Your task to perform on an android device: remove spam from my inbox in the gmail app Image 0: 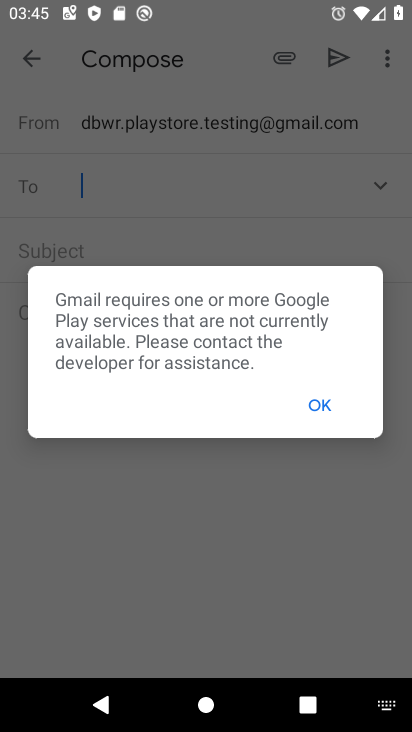
Step 0: press home button
Your task to perform on an android device: remove spam from my inbox in the gmail app Image 1: 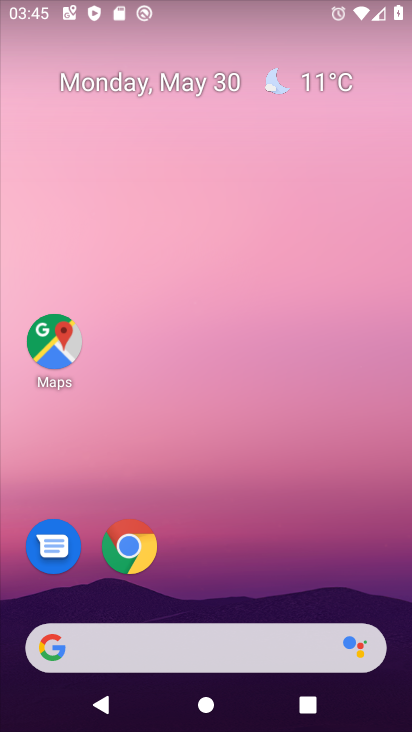
Step 1: drag from (218, 528) to (235, 157)
Your task to perform on an android device: remove spam from my inbox in the gmail app Image 2: 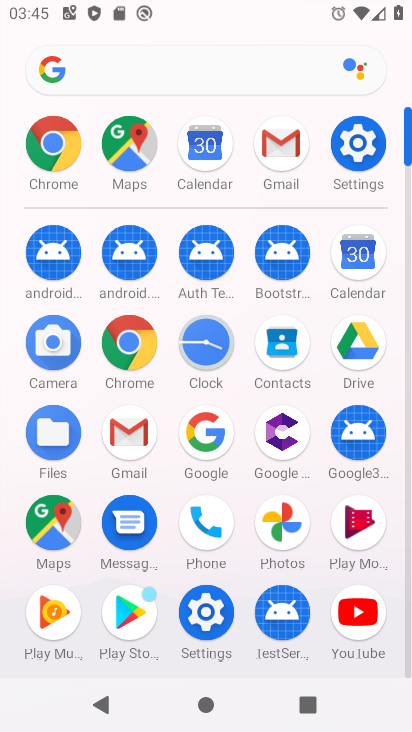
Step 2: click (266, 135)
Your task to perform on an android device: remove spam from my inbox in the gmail app Image 3: 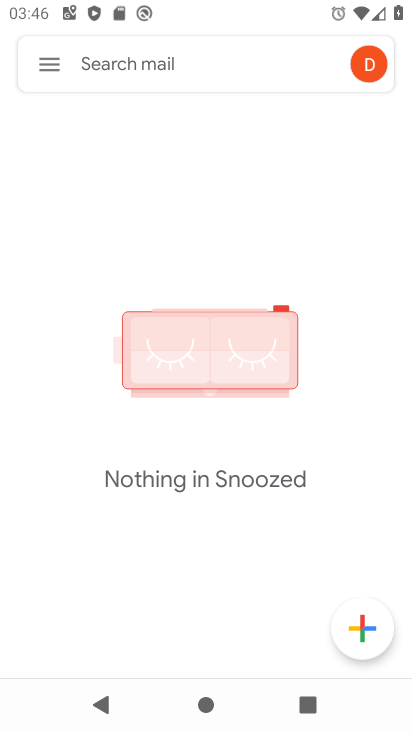
Step 3: click (37, 52)
Your task to perform on an android device: remove spam from my inbox in the gmail app Image 4: 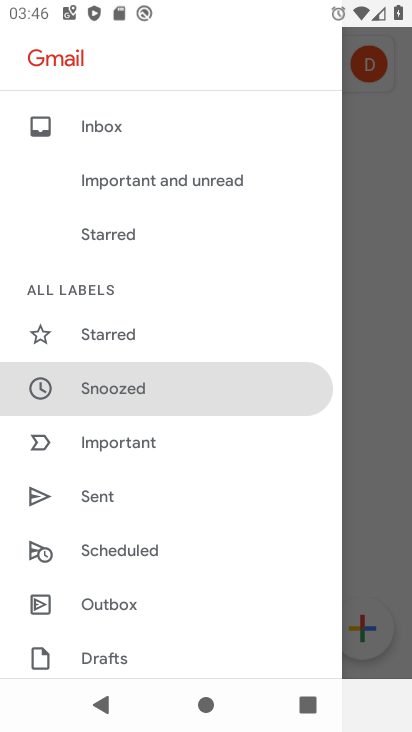
Step 4: drag from (149, 625) to (200, 154)
Your task to perform on an android device: remove spam from my inbox in the gmail app Image 5: 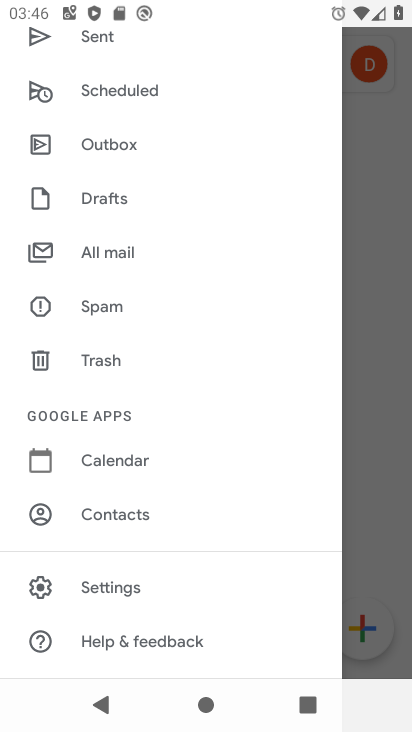
Step 5: click (127, 304)
Your task to perform on an android device: remove spam from my inbox in the gmail app Image 6: 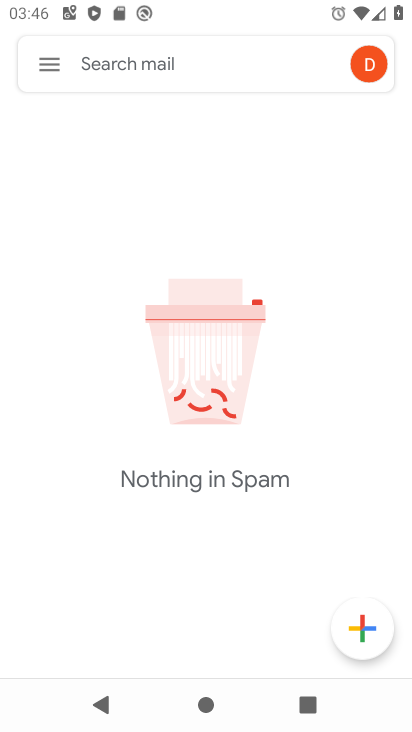
Step 6: task complete